Your task to perform on an android device: Open Yahoo.com Image 0: 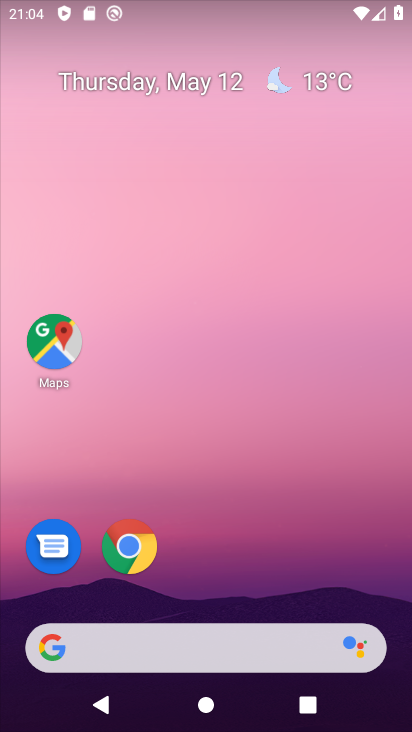
Step 0: click (141, 544)
Your task to perform on an android device: Open Yahoo.com Image 1: 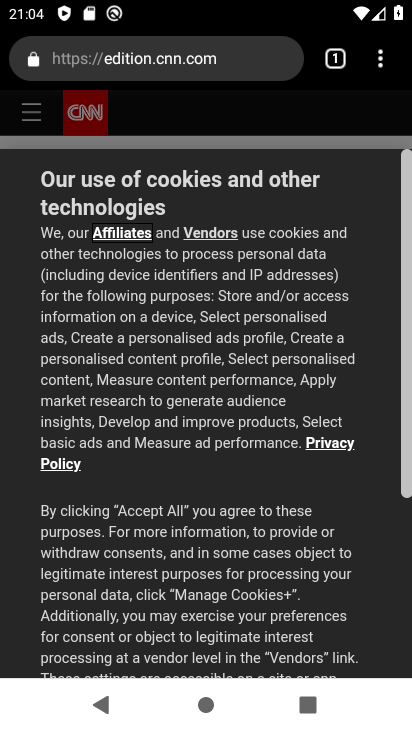
Step 1: drag from (383, 57) to (181, 120)
Your task to perform on an android device: Open Yahoo.com Image 2: 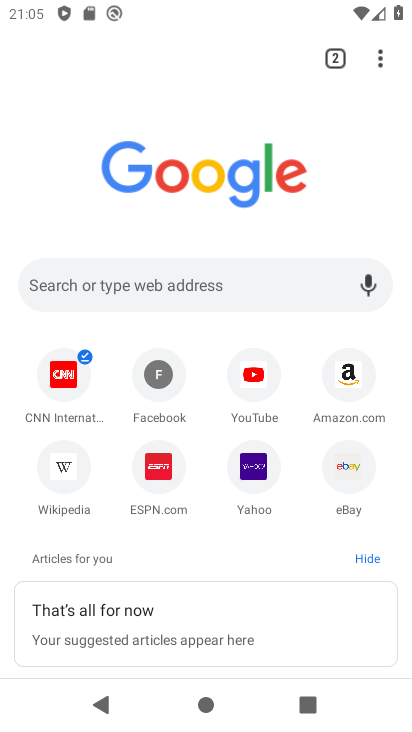
Step 2: click (158, 287)
Your task to perform on an android device: Open Yahoo.com Image 3: 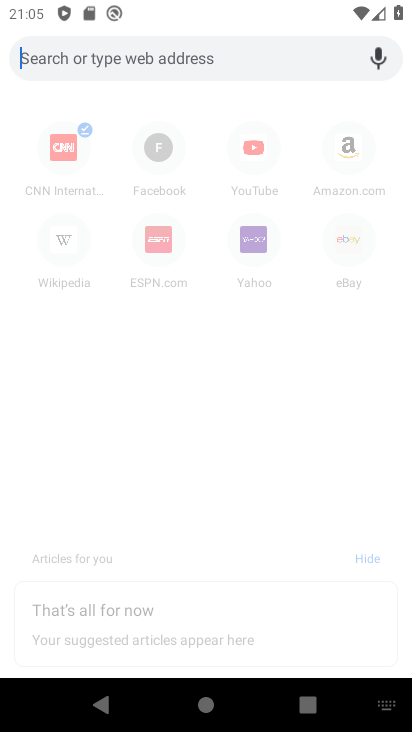
Step 3: type " Yahoo.com"
Your task to perform on an android device: Open Yahoo.com Image 4: 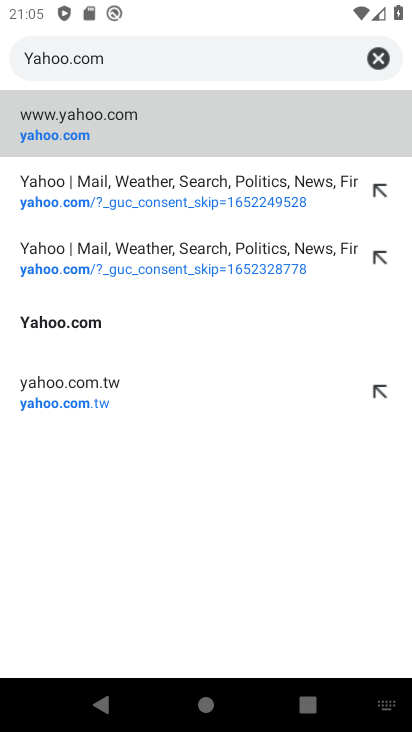
Step 4: click (73, 129)
Your task to perform on an android device: Open Yahoo.com Image 5: 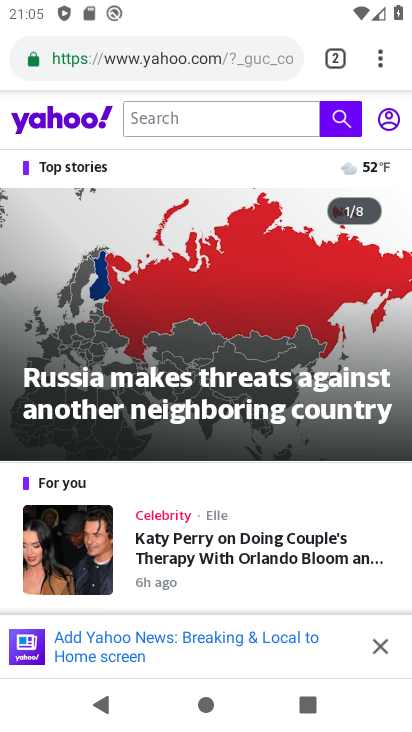
Step 5: task complete